Your task to perform on an android device: move an email to a new category in the gmail app Image 0: 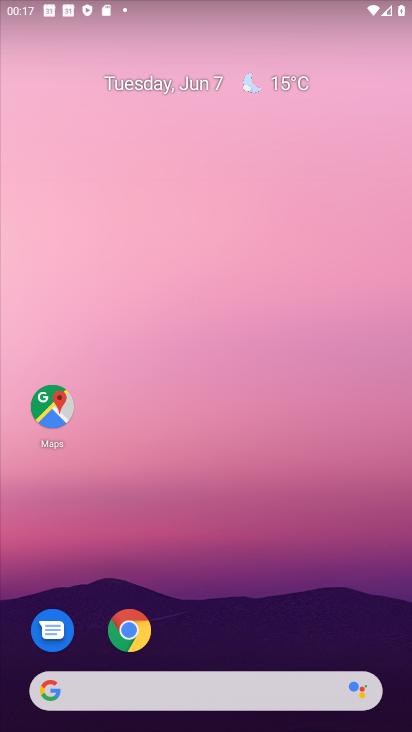
Step 0: drag from (349, 586) to (336, 163)
Your task to perform on an android device: move an email to a new category in the gmail app Image 1: 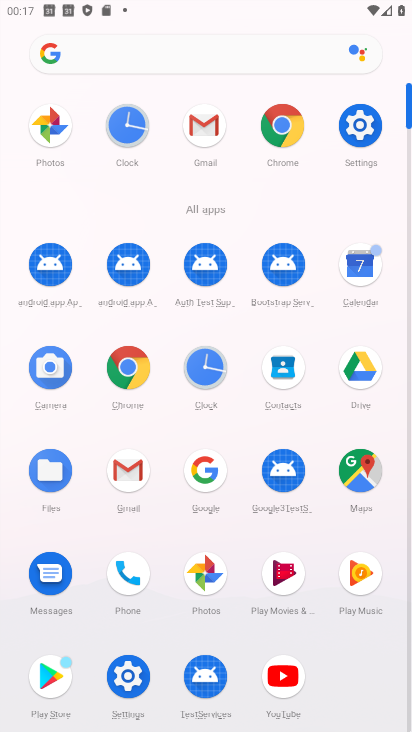
Step 1: click (114, 483)
Your task to perform on an android device: move an email to a new category in the gmail app Image 2: 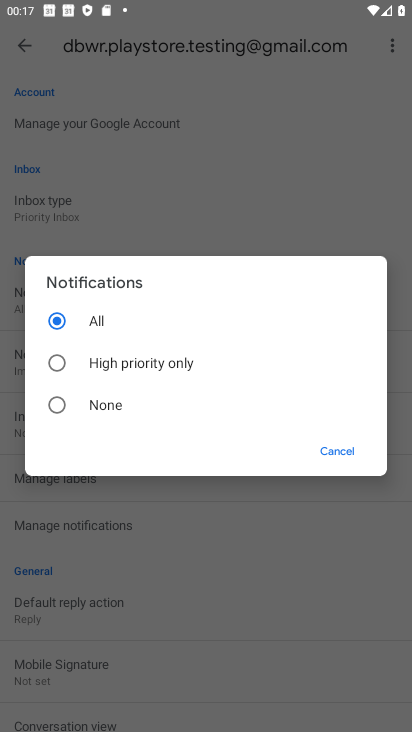
Step 2: click (336, 451)
Your task to perform on an android device: move an email to a new category in the gmail app Image 3: 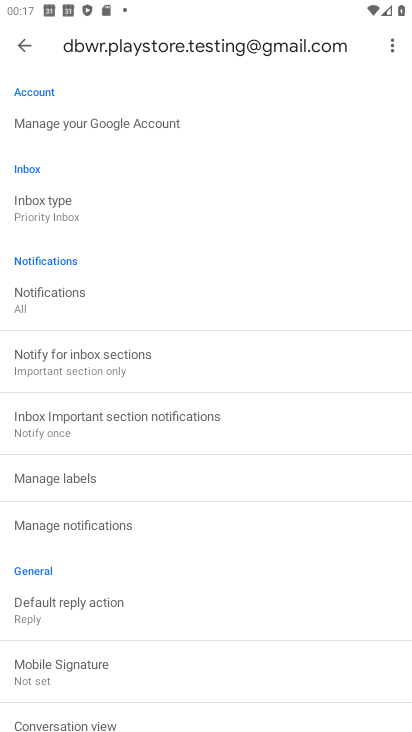
Step 3: click (16, 44)
Your task to perform on an android device: move an email to a new category in the gmail app Image 4: 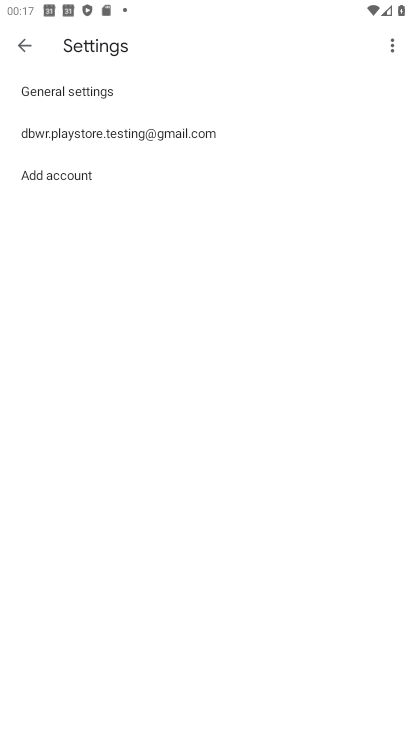
Step 4: click (23, 50)
Your task to perform on an android device: move an email to a new category in the gmail app Image 5: 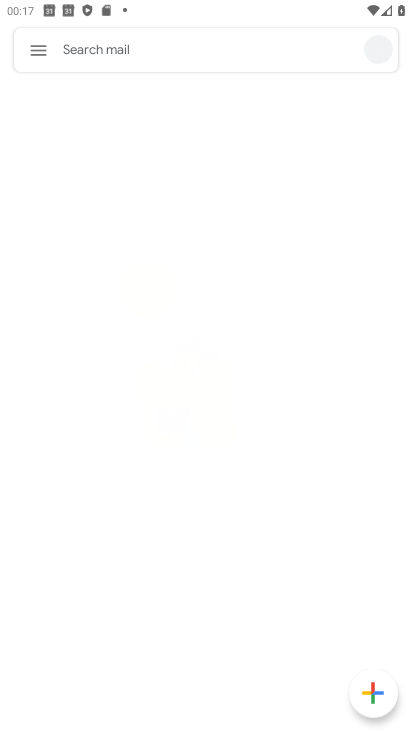
Step 5: click (37, 47)
Your task to perform on an android device: move an email to a new category in the gmail app Image 6: 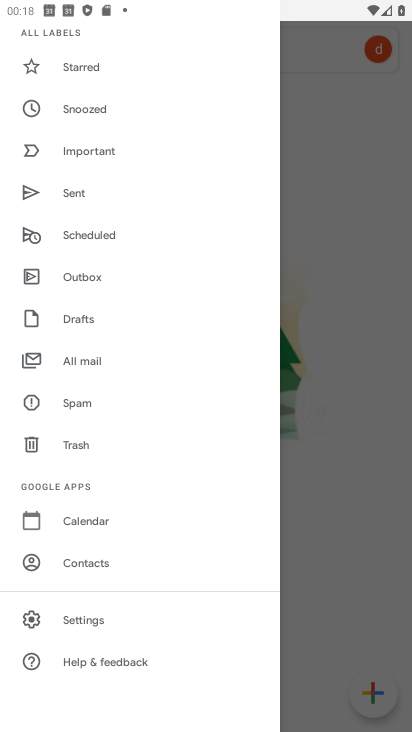
Step 6: click (103, 617)
Your task to perform on an android device: move an email to a new category in the gmail app Image 7: 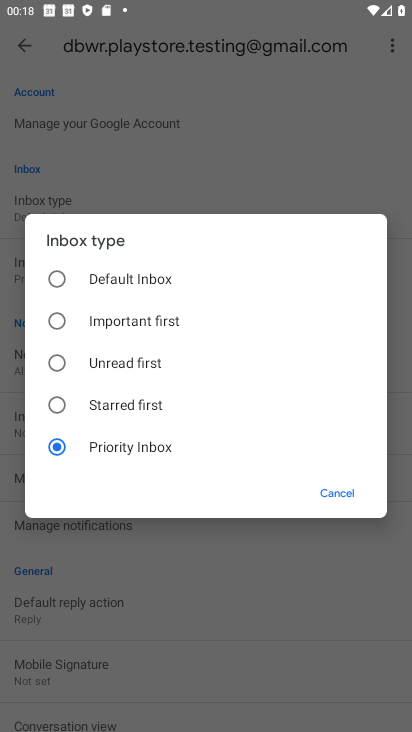
Step 7: click (327, 492)
Your task to perform on an android device: move an email to a new category in the gmail app Image 8: 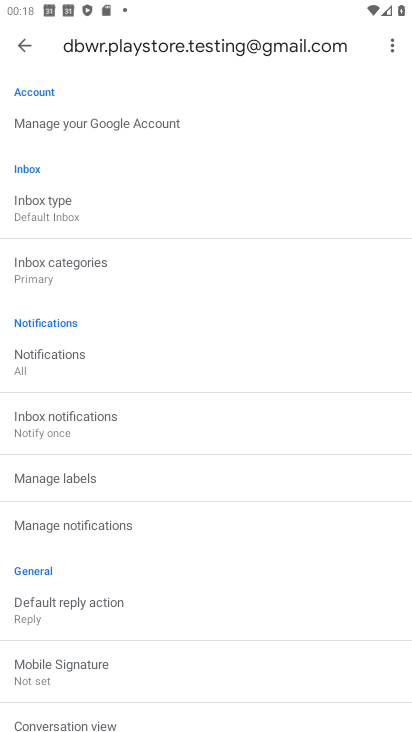
Step 8: click (30, 50)
Your task to perform on an android device: move an email to a new category in the gmail app Image 9: 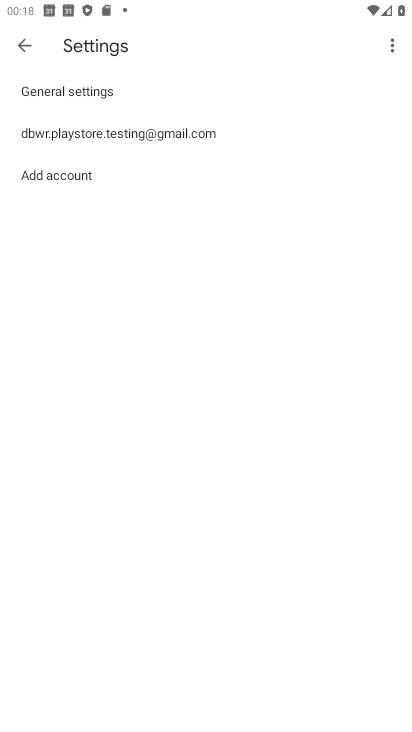
Step 9: click (26, 47)
Your task to perform on an android device: move an email to a new category in the gmail app Image 10: 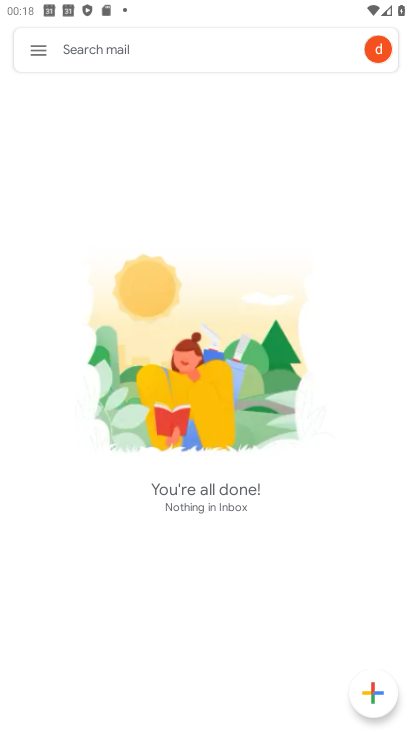
Step 10: click (43, 55)
Your task to perform on an android device: move an email to a new category in the gmail app Image 11: 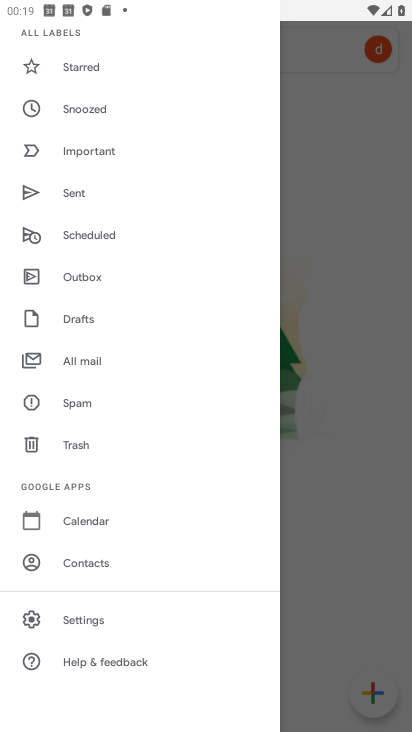
Step 11: click (88, 348)
Your task to perform on an android device: move an email to a new category in the gmail app Image 12: 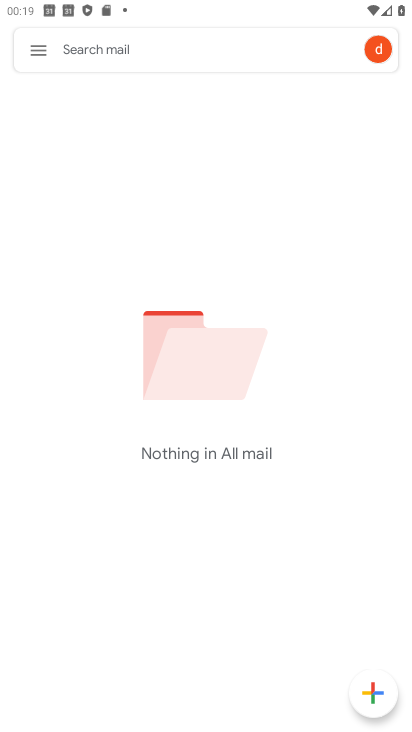
Step 12: task complete